Your task to perform on an android device: add a label to a message in the gmail app Image 0: 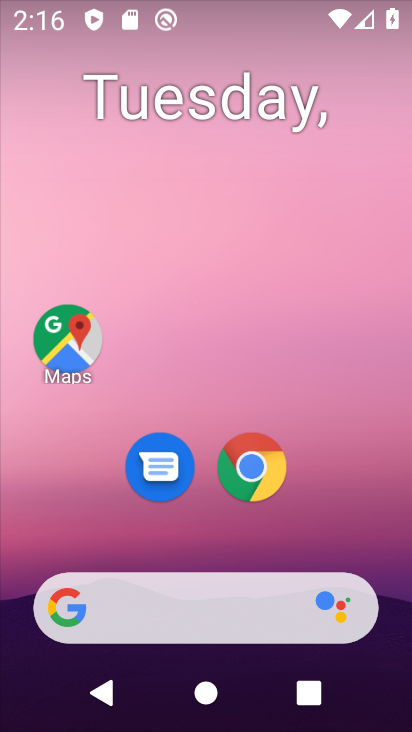
Step 0: drag from (363, 542) to (348, 146)
Your task to perform on an android device: add a label to a message in the gmail app Image 1: 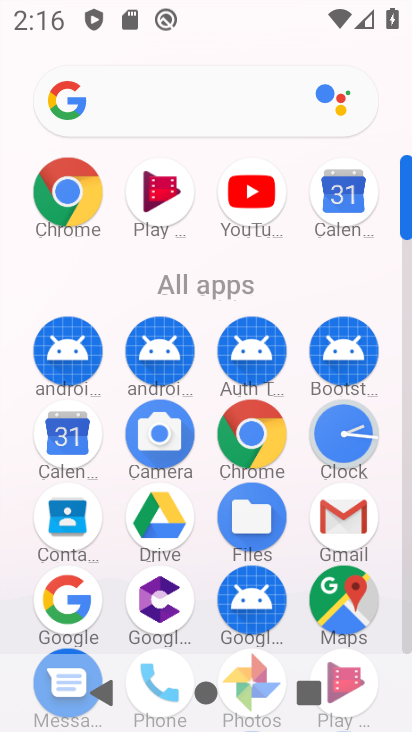
Step 1: click (347, 513)
Your task to perform on an android device: add a label to a message in the gmail app Image 2: 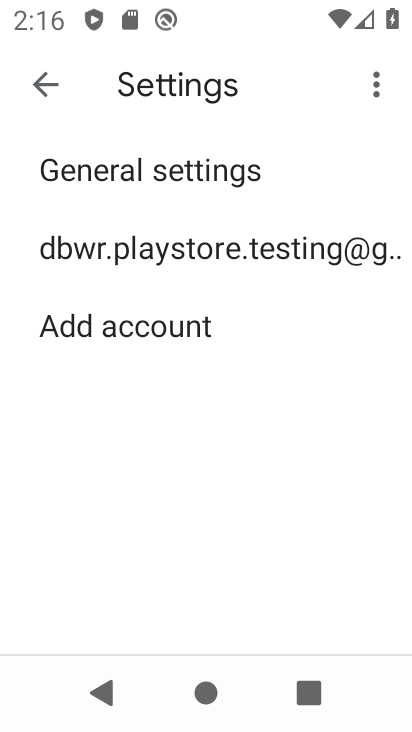
Step 2: click (41, 91)
Your task to perform on an android device: add a label to a message in the gmail app Image 3: 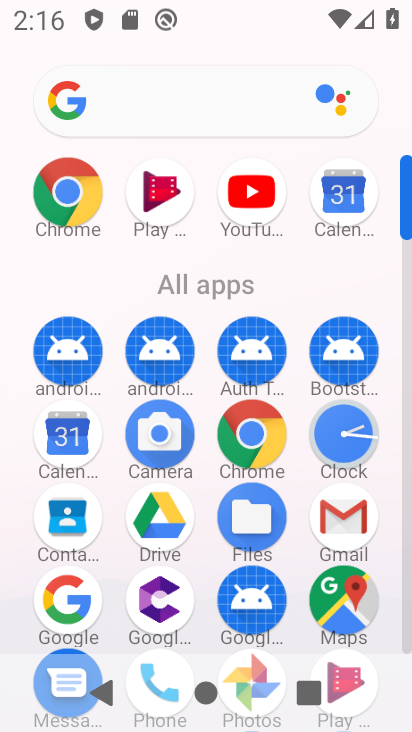
Step 3: click (354, 522)
Your task to perform on an android device: add a label to a message in the gmail app Image 4: 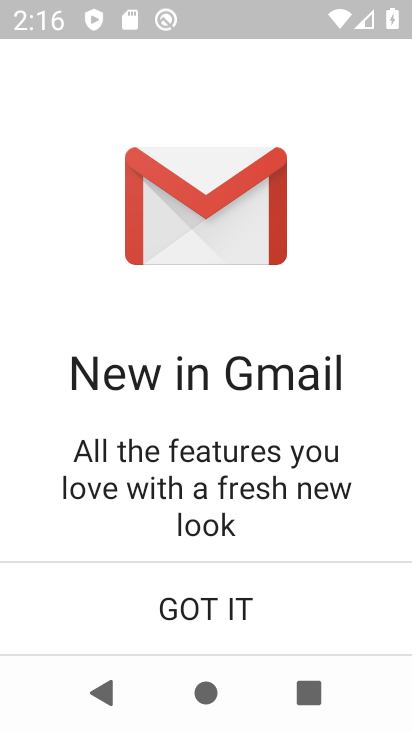
Step 4: click (308, 599)
Your task to perform on an android device: add a label to a message in the gmail app Image 5: 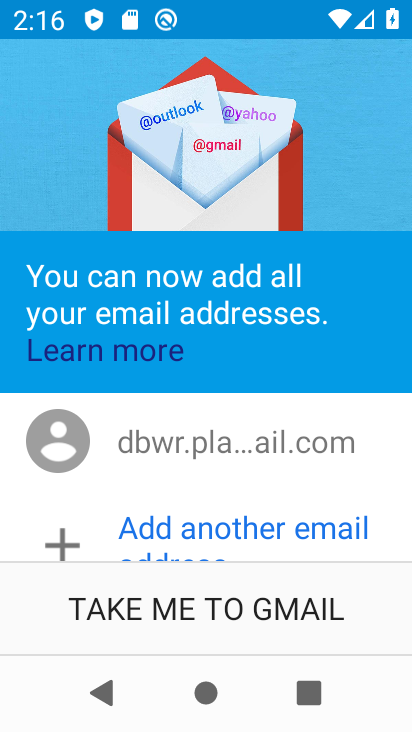
Step 5: click (308, 599)
Your task to perform on an android device: add a label to a message in the gmail app Image 6: 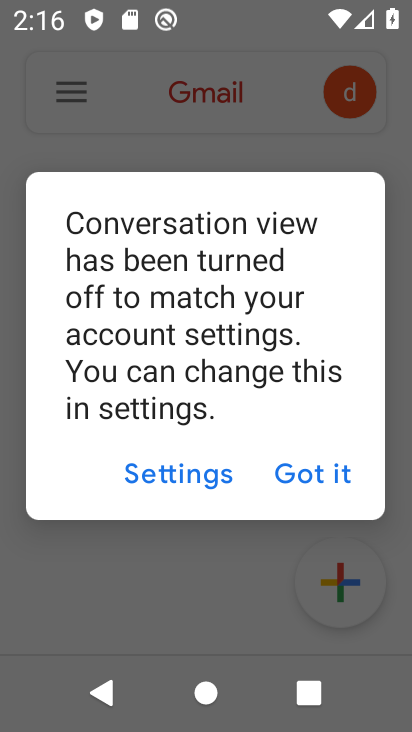
Step 6: click (299, 471)
Your task to perform on an android device: add a label to a message in the gmail app Image 7: 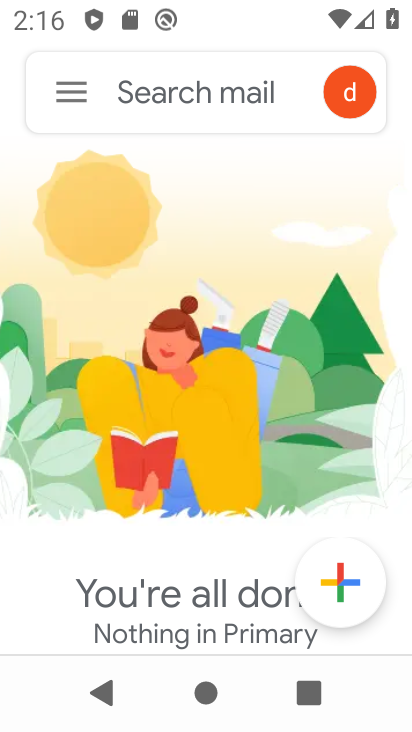
Step 7: task complete